Your task to perform on an android device: Open internet settings Image 0: 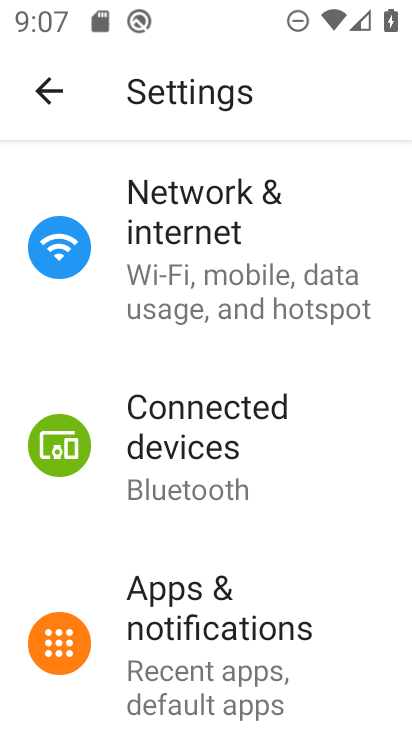
Step 0: click (187, 221)
Your task to perform on an android device: Open internet settings Image 1: 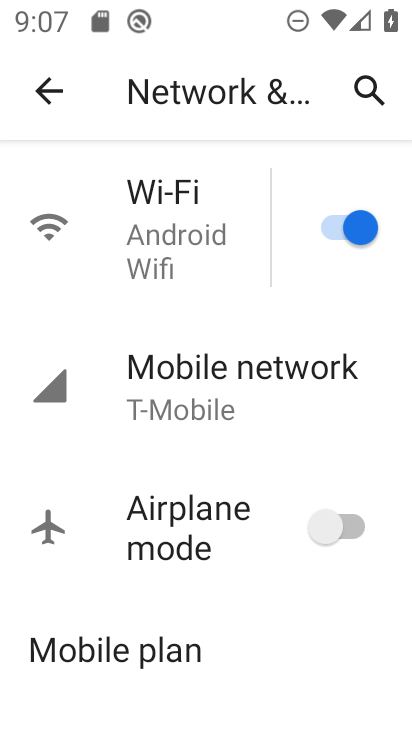
Step 1: drag from (208, 630) to (202, 357)
Your task to perform on an android device: Open internet settings Image 2: 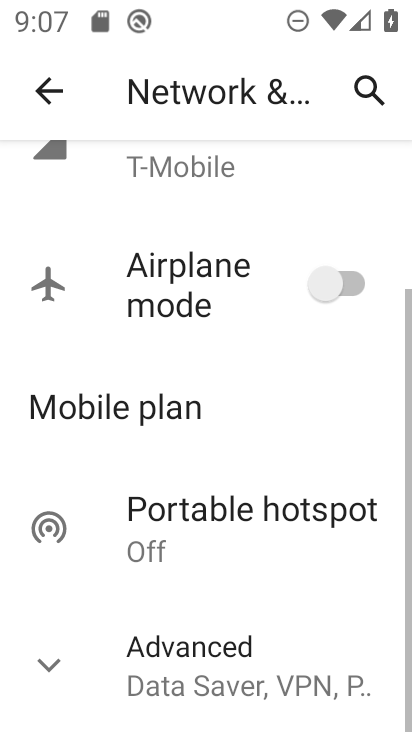
Step 2: drag from (202, 214) to (205, 160)
Your task to perform on an android device: Open internet settings Image 3: 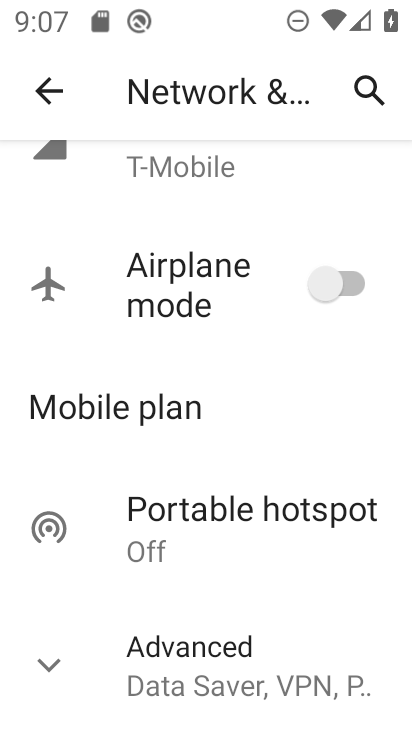
Step 3: click (55, 657)
Your task to perform on an android device: Open internet settings Image 4: 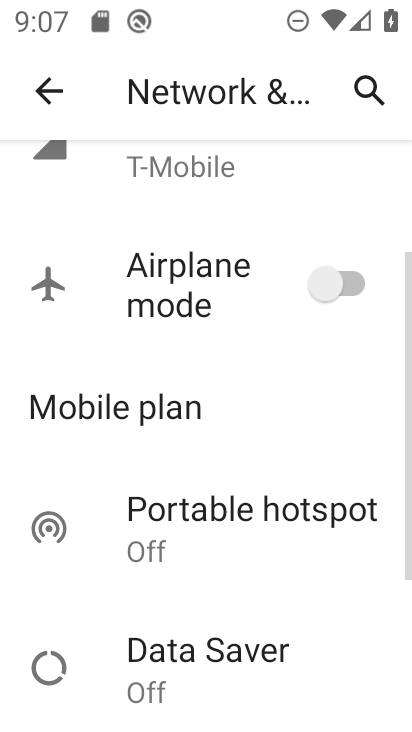
Step 4: task complete